Your task to perform on an android device: add a contact in the contacts app Image 0: 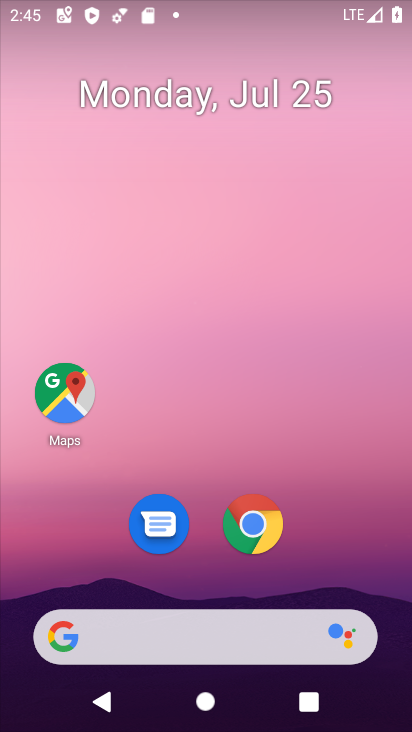
Step 0: drag from (188, 469) to (223, 15)
Your task to perform on an android device: add a contact in the contacts app Image 1: 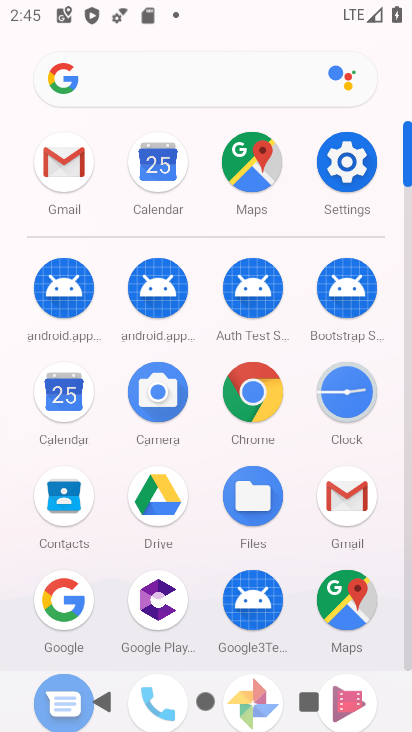
Step 1: click (74, 508)
Your task to perform on an android device: add a contact in the contacts app Image 2: 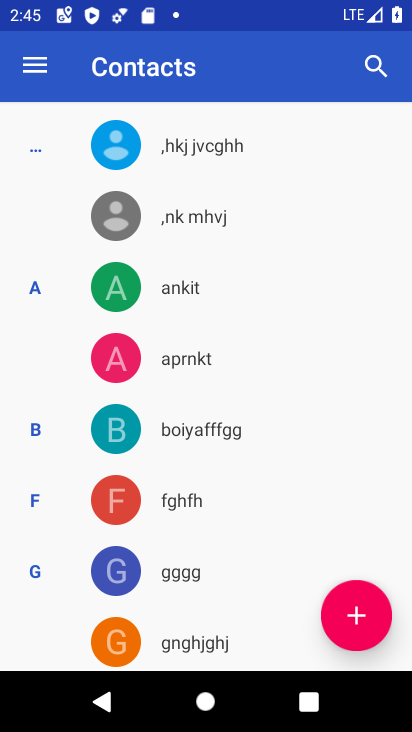
Step 2: click (354, 615)
Your task to perform on an android device: add a contact in the contacts app Image 3: 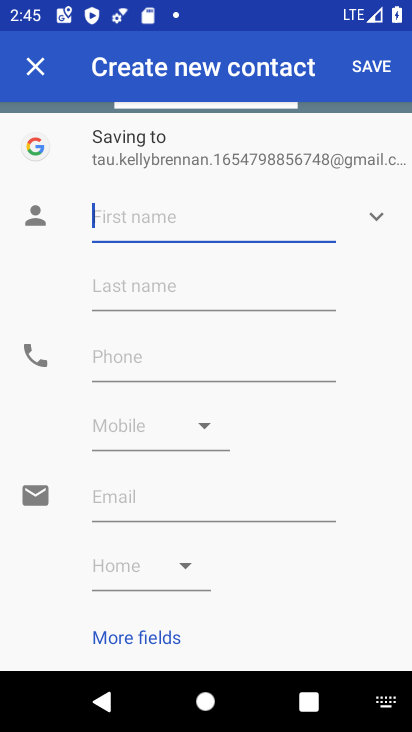
Step 3: type "Vithhal "
Your task to perform on an android device: add a contact in the contacts app Image 4: 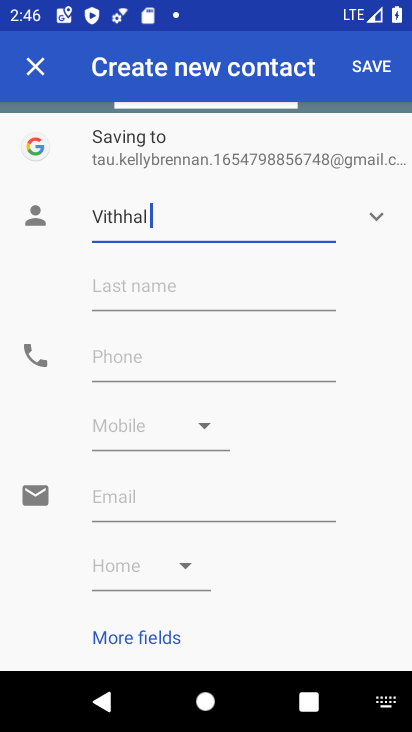
Step 4: click (207, 361)
Your task to perform on an android device: add a contact in the contacts app Image 5: 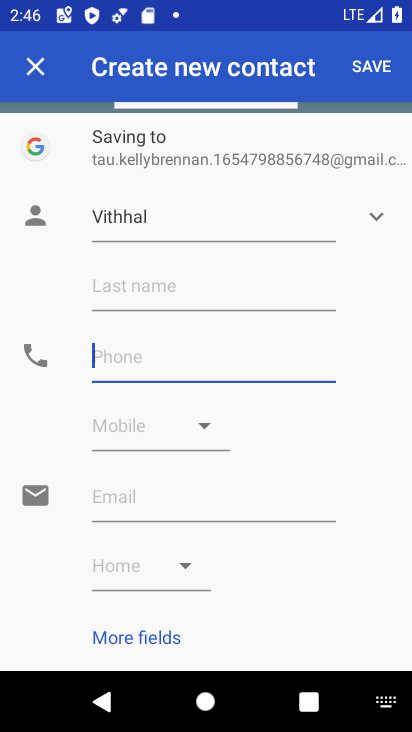
Step 5: type "+91223344556677"
Your task to perform on an android device: add a contact in the contacts app Image 6: 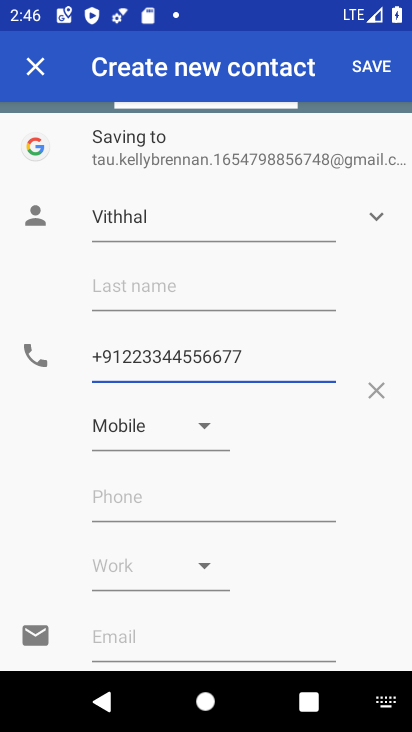
Step 6: click (381, 68)
Your task to perform on an android device: add a contact in the contacts app Image 7: 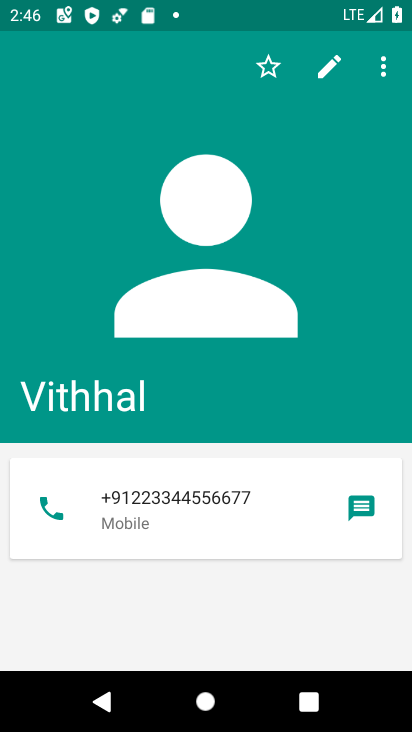
Step 7: task complete